Your task to perform on an android device: turn off data saver in the chrome app Image 0: 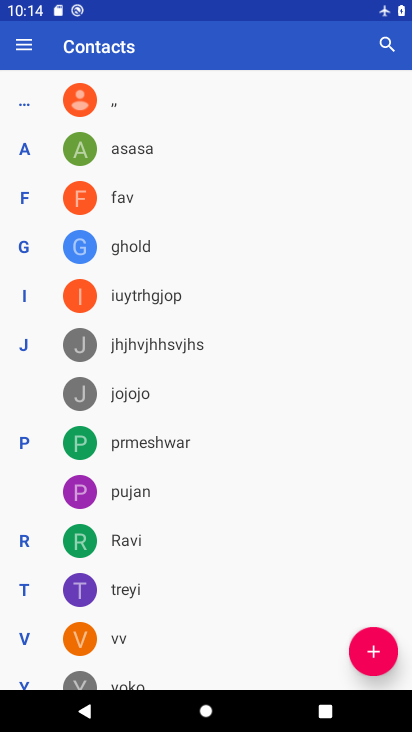
Step 0: press home button
Your task to perform on an android device: turn off data saver in the chrome app Image 1: 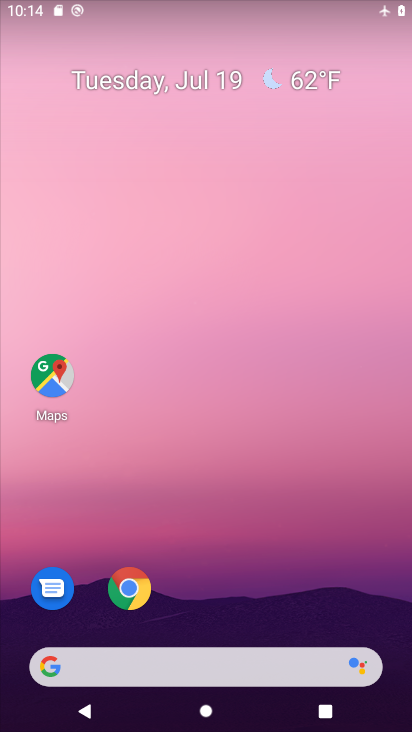
Step 1: click (130, 589)
Your task to perform on an android device: turn off data saver in the chrome app Image 2: 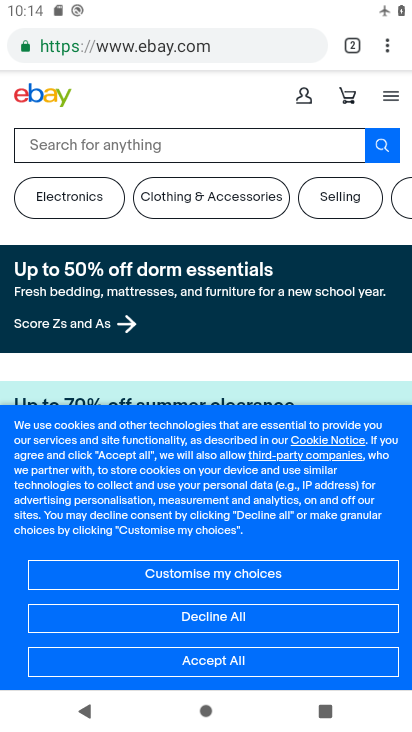
Step 2: click (389, 44)
Your task to perform on an android device: turn off data saver in the chrome app Image 3: 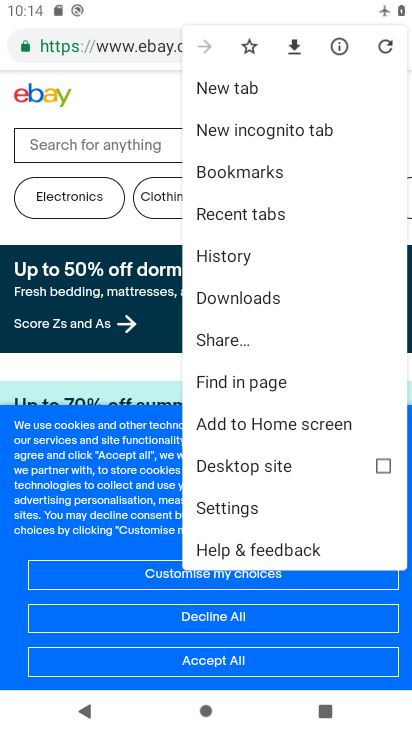
Step 3: click (216, 506)
Your task to perform on an android device: turn off data saver in the chrome app Image 4: 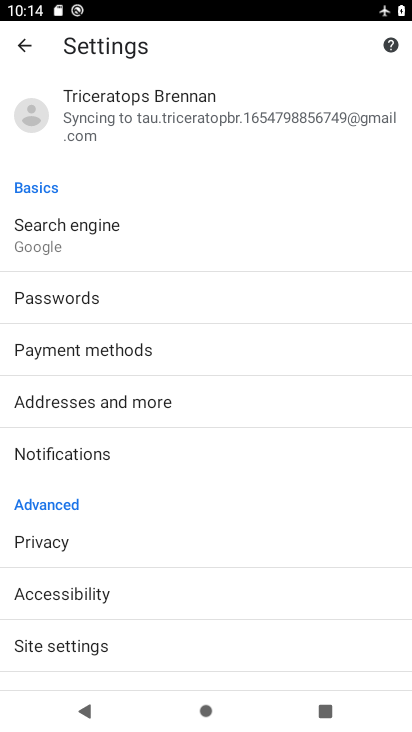
Step 4: click (54, 647)
Your task to perform on an android device: turn off data saver in the chrome app Image 5: 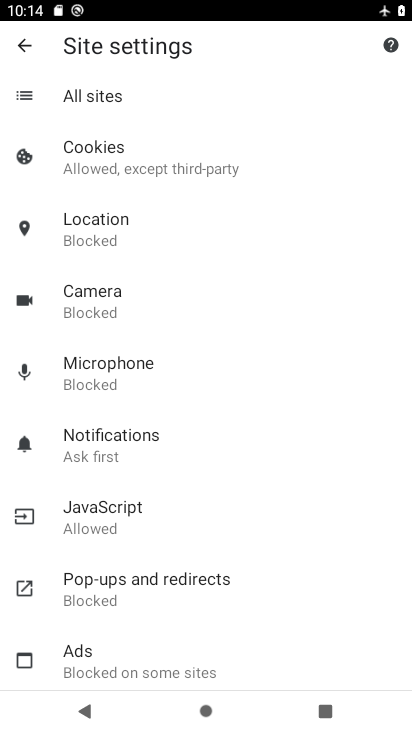
Step 5: click (86, 505)
Your task to perform on an android device: turn off data saver in the chrome app Image 6: 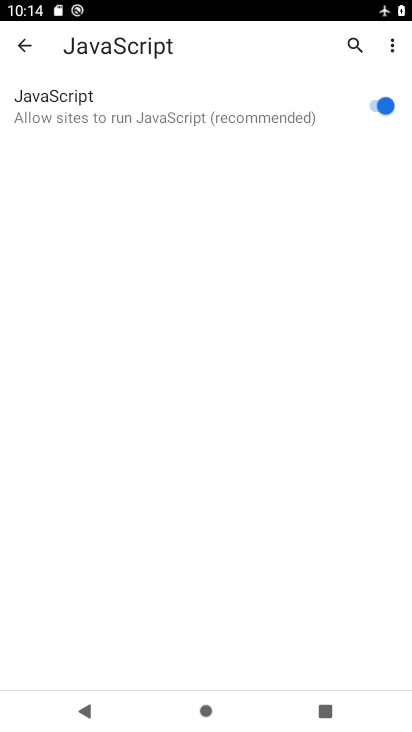
Step 6: click (380, 97)
Your task to perform on an android device: turn off data saver in the chrome app Image 7: 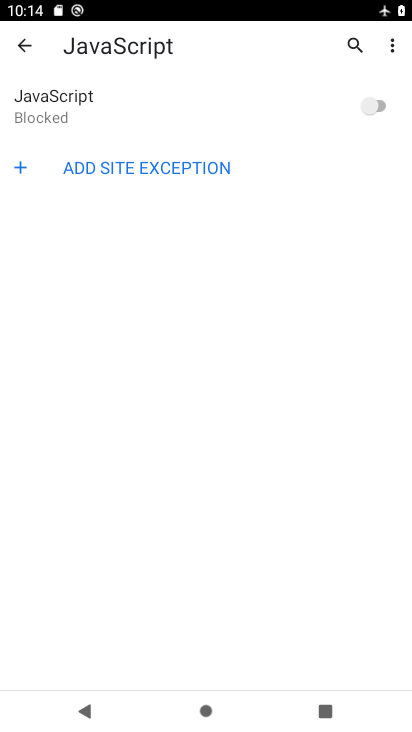
Step 7: task complete